Your task to perform on an android device: open sync settings in chrome Image 0: 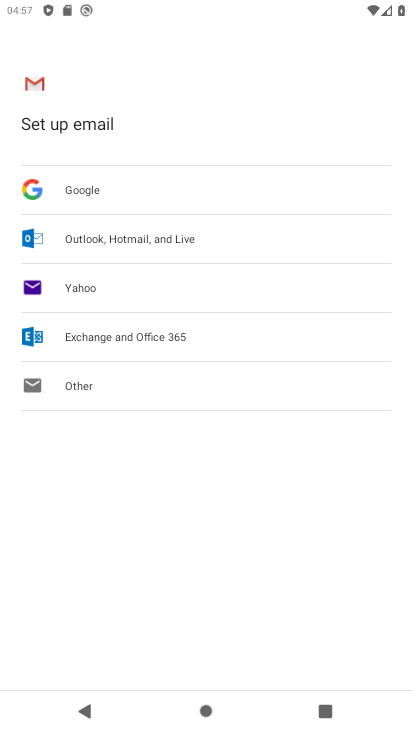
Step 0: press home button
Your task to perform on an android device: open sync settings in chrome Image 1: 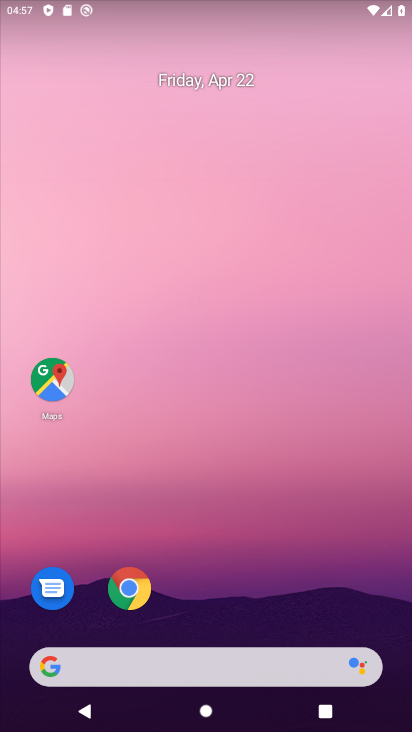
Step 1: click (130, 588)
Your task to perform on an android device: open sync settings in chrome Image 2: 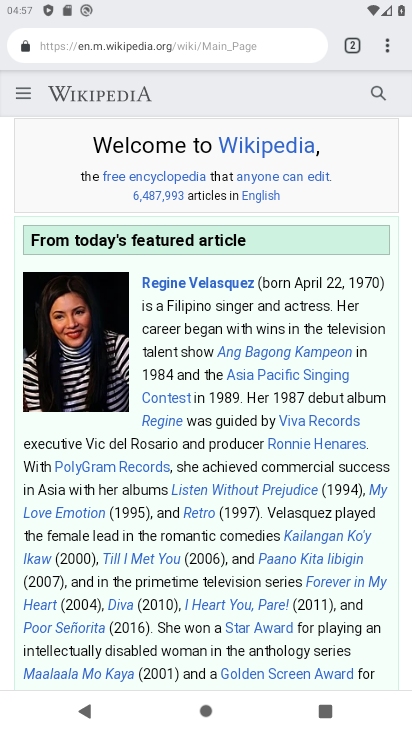
Step 2: click (385, 46)
Your task to perform on an android device: open sync settings in chrome Image 3: 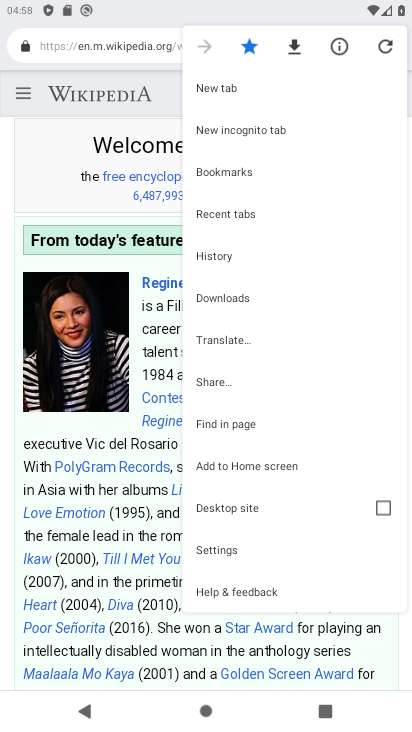
Step 3: click (236, 548)
Your task to perform on an android device: open sync settings in chrome Image 4: 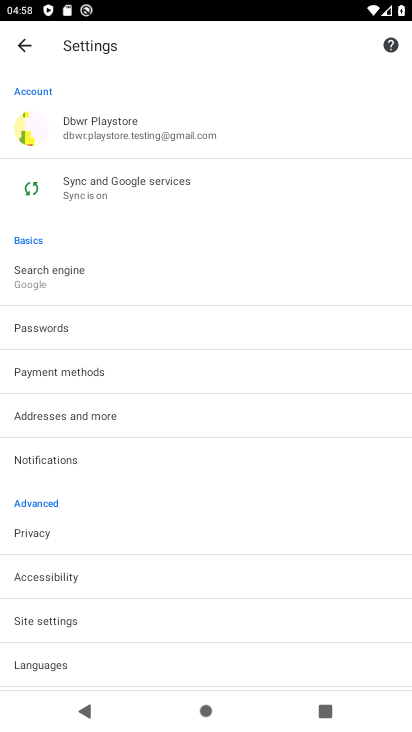
Step 4: click (132, 184)
Your task to perform on an android device: open sync settings in chrome Image 5: 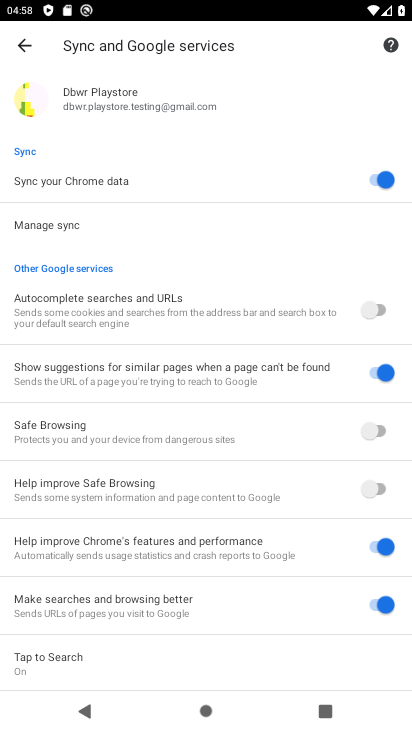
Step 5: task complete